Your task to perform on an android device: snooze an email in the gmail app Image 0: 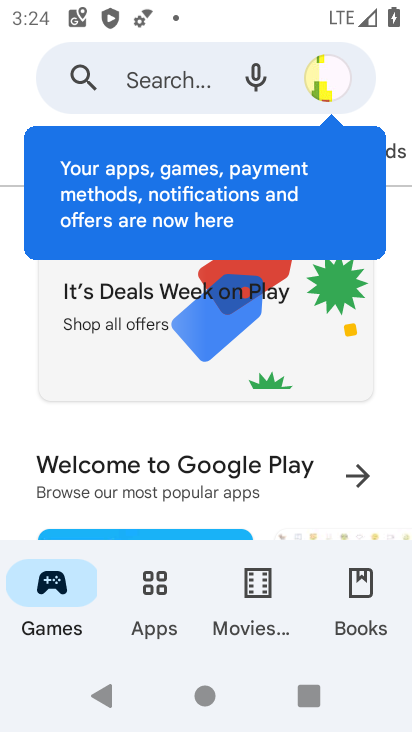
Step 0: press home button
Your task to perform on an android device: snooze an email in the gmail app Image 1: 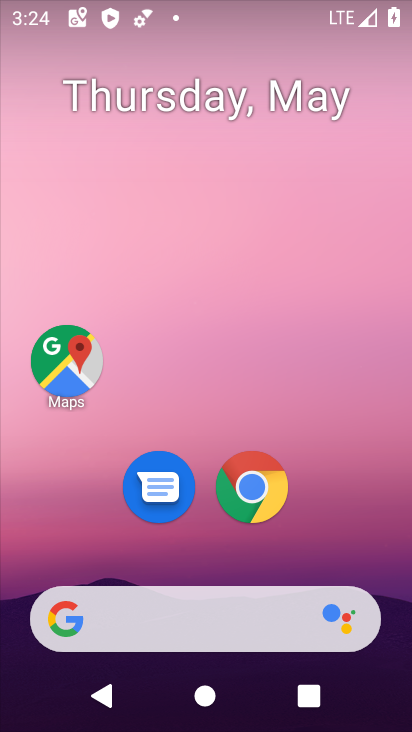
Step 1: drag from (255, 604) to (328, 196)
Your task to perform on an android device: snooze an email in the gmail app Image 2: 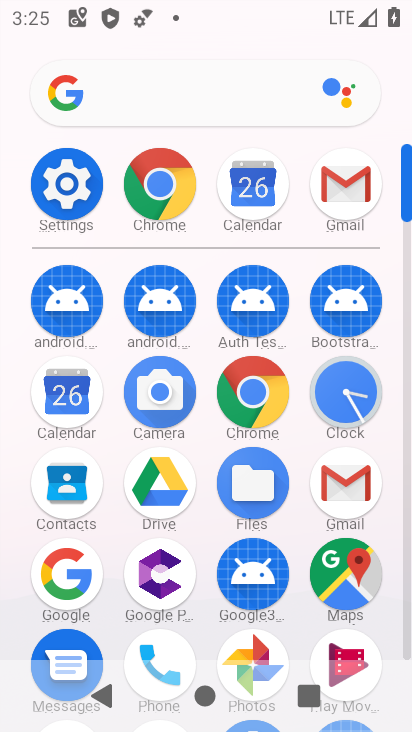
Step 2: click (350, 494)
Your task to perform on an android device: snooze an email in the gmail app Image 3: 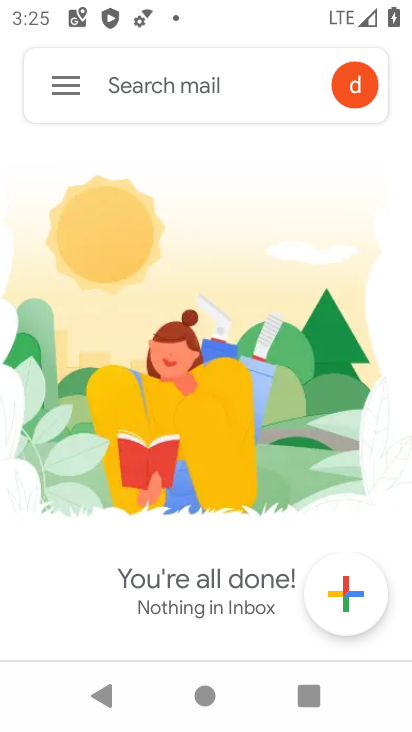
Step 3: click (68, 95)
Your task to perform on an android device: snooze an email in the gmail app Image 4: 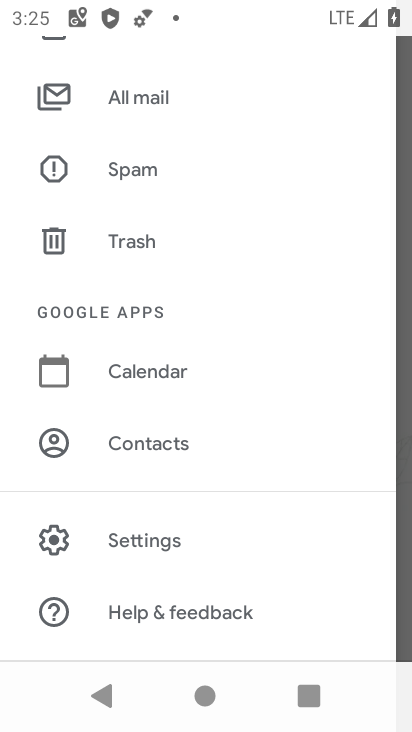
Step 4: click (188, 108)
Your task to perform on an android device: snooze an email in the gmail app Image 5: 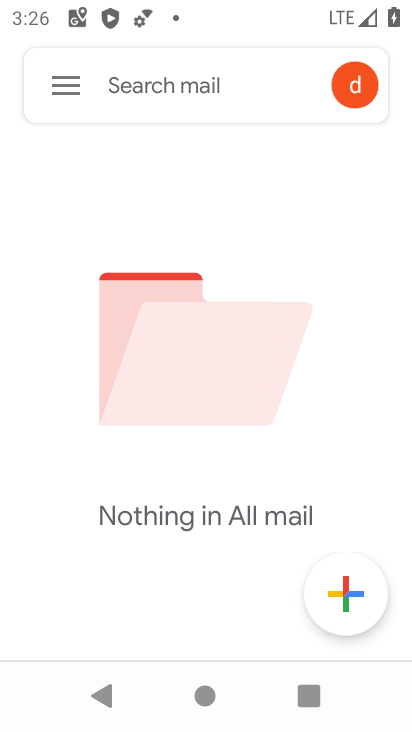
Step 5: task complete